Your task to perform on an android device: What time is it in London? Image 0: 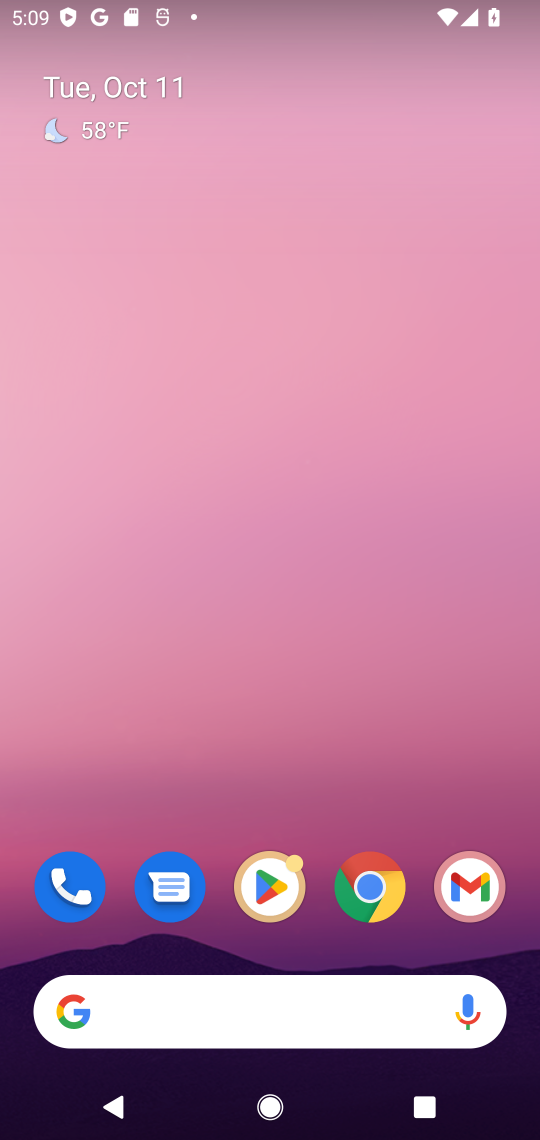
Step 0: click (239, 1014)
Your task to perform on an android device: What time is it in London? Image 1: 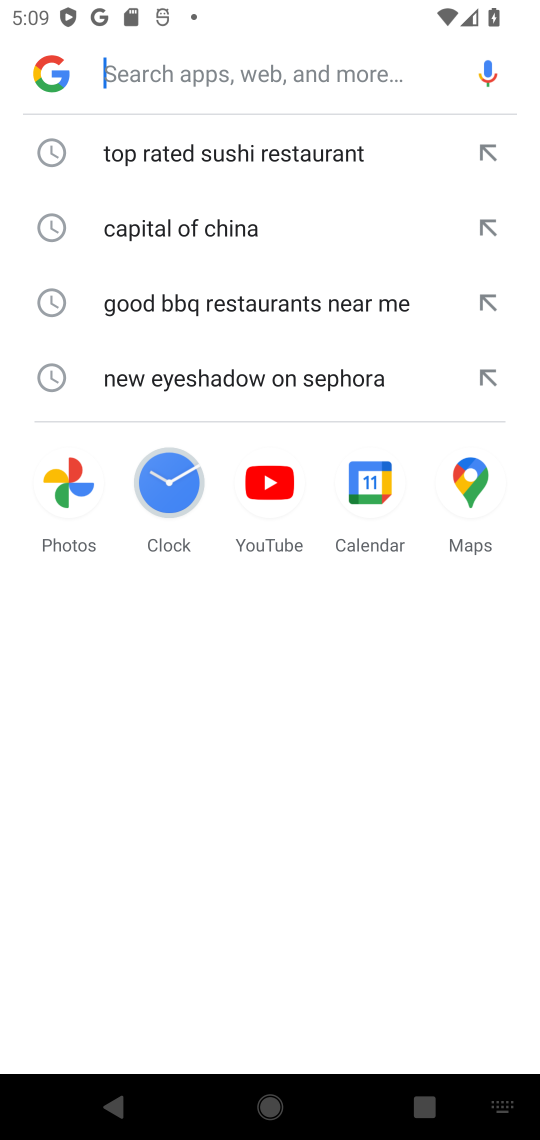
Step 1: press back button
Your task to perform on an android device: What time is it in London? Image 2: 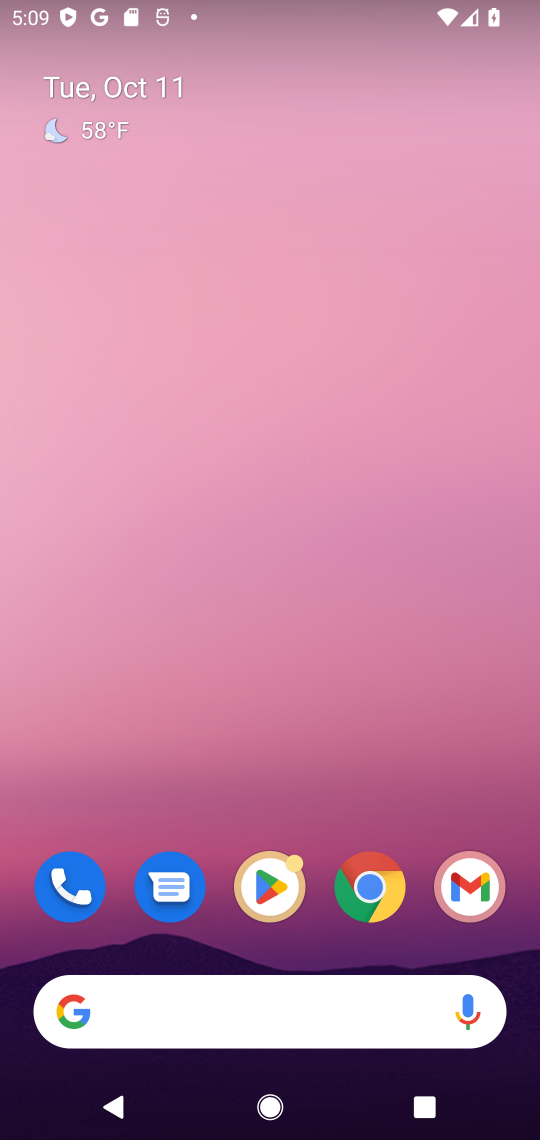
Step 2: type "time is it in London"
Your task to perform on an android device: What time is it in London? Image 3: 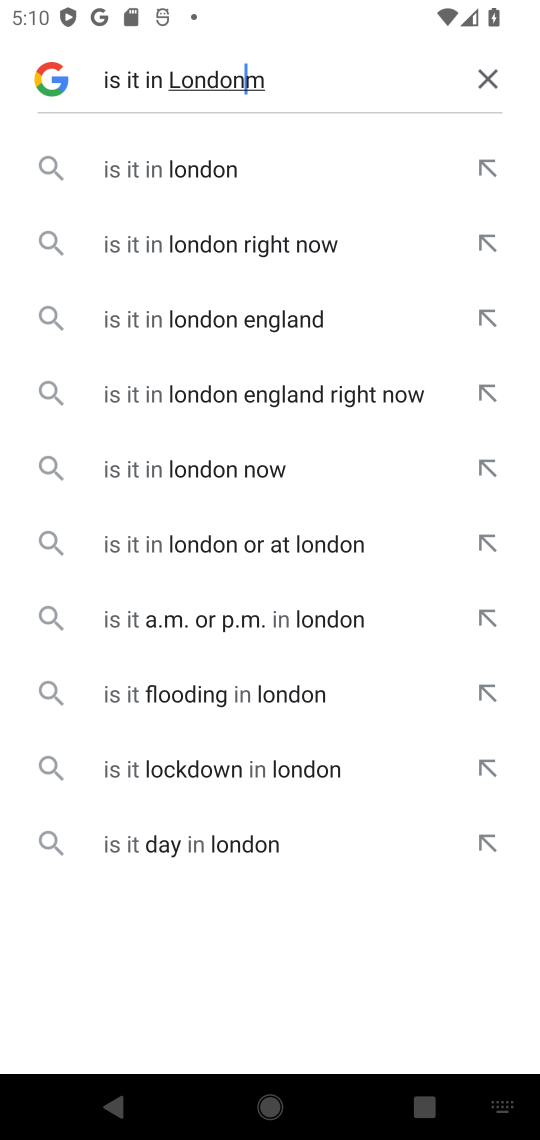
Step 3: press enter
Your task to perform on an android device: What time is it in London? Image 4: 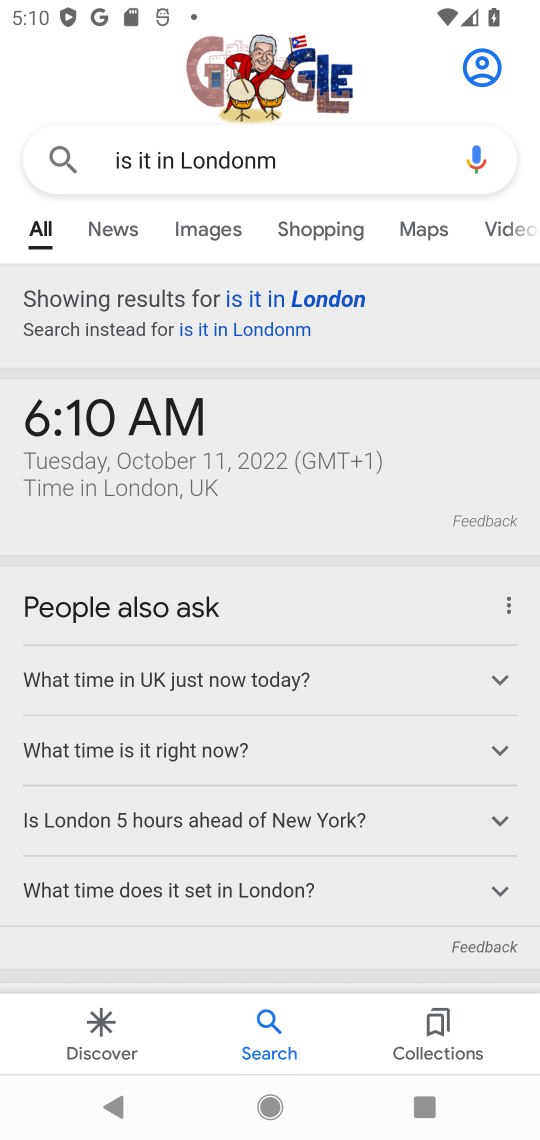
Step 4: drag from (255, 600) to (331, 366)
Your task to perform on an android device: What time is it in London? Image 5: 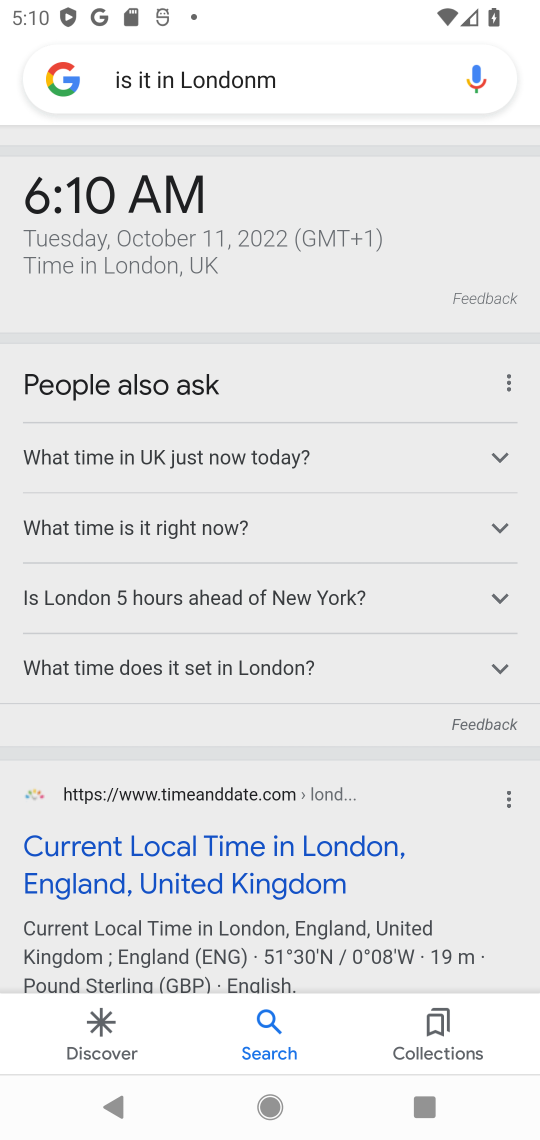
Step 5: click (130, 200)
Your task to perform on an android device: What time is it in London? Image 6: 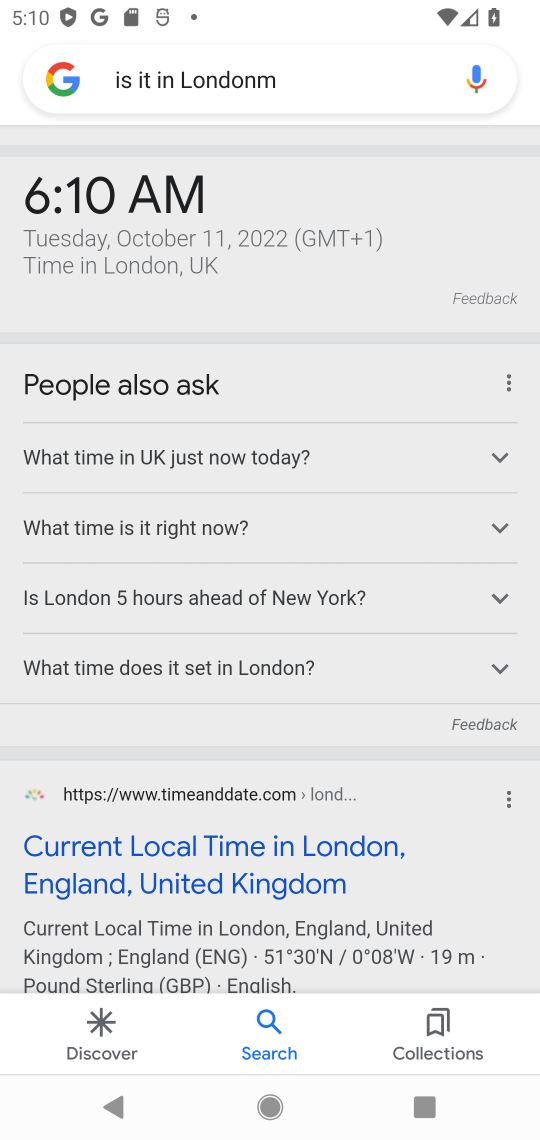
Step 6: click (202, 843)
Your task to perform on an android device: What time is it in London? Image 7: 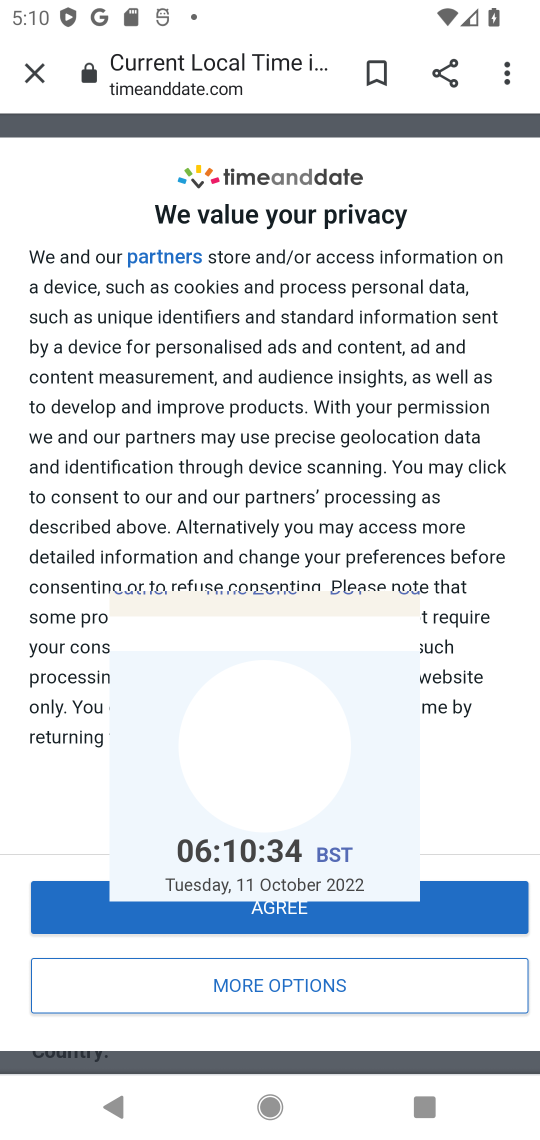
Step 7: click (466, 914)
Your task to perform on an android device: What time is it in London? Image 8: 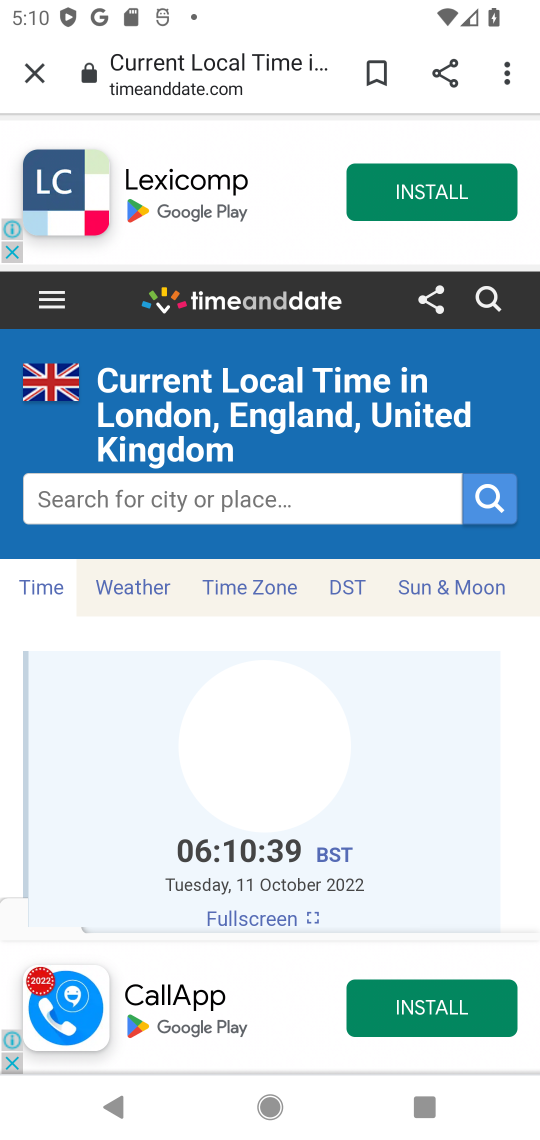
Step 8: task complete